Your task to perform on an android device: Open Chrome and go to the settings page Image 0: 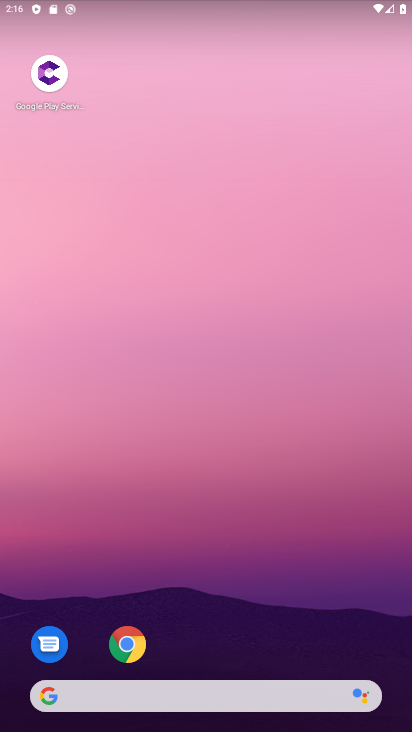
Step 0: click (139, 656)
Your task to perform on an android device: Open Chrome and go to the settings page Image 1: 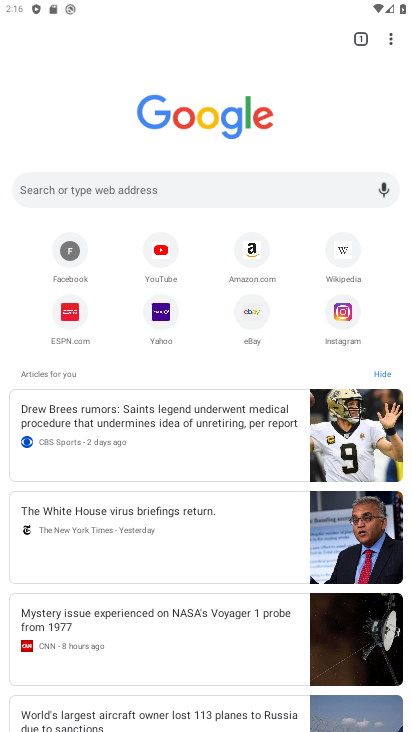
Step 1: task complete